Your task to perform on an android device: What's on my calendar tomorrow? Image 0: 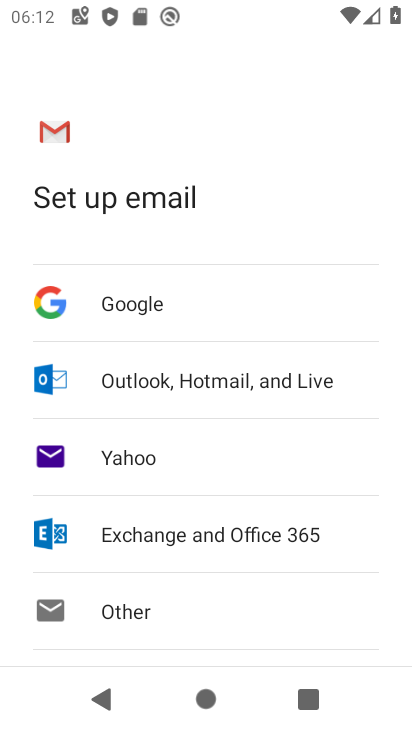
Step 0: press home button
Your task to perform on an android device: What's on my calendar tomorrow? Image 1: 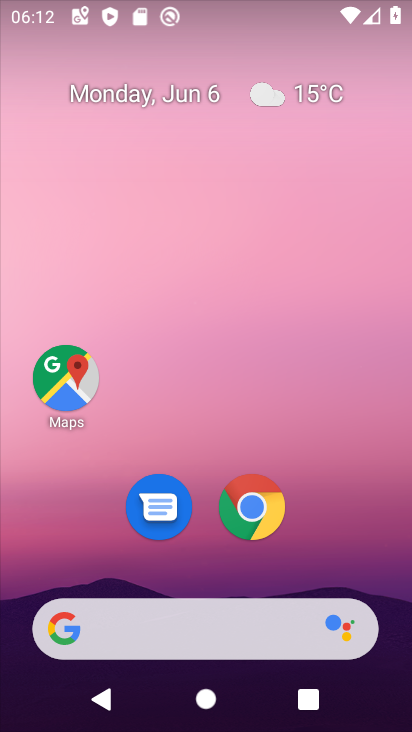
Step 1: drag from (226, 511) to (176, 7)
Your task to perform on an android device: What's on my calendar tomorrow? Image 2: 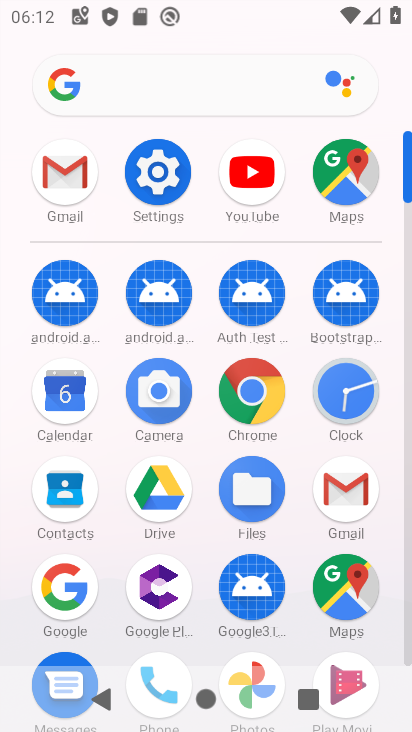
Step 2: drag from (300, 640) to (308, 221)
Your task to perform on an android device: What's on my calendar tomorrow? Image 3: 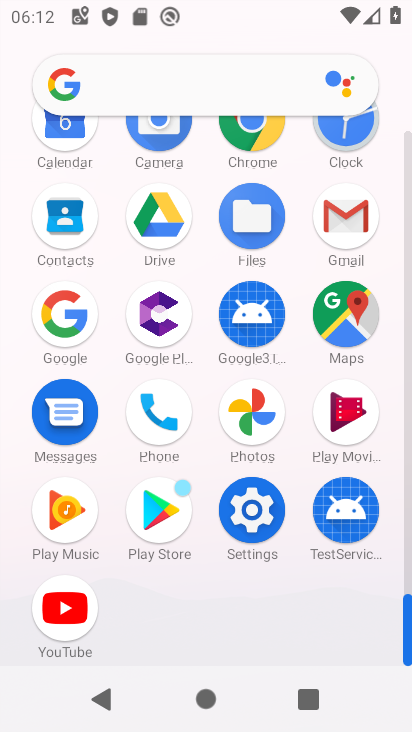
Step 3: drag from (301, 225) to (281, 599)
Your task to perform on an android device: What's on my calendar tomorrow? Image 4: 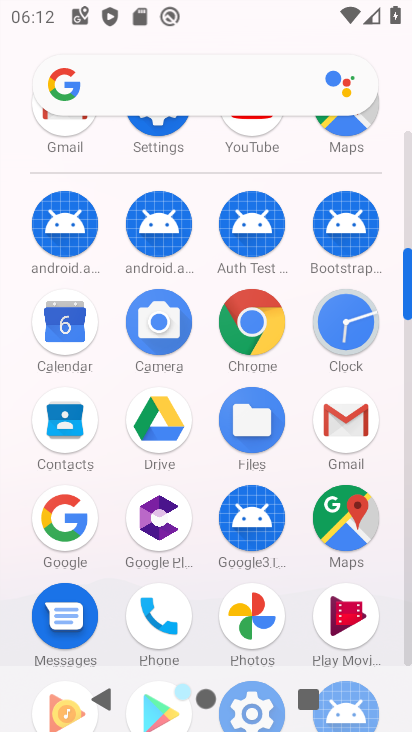
Step 4: drag from (291, 585) to (319, 3)
Your task to perform on an android device: What's on my calendar tomorrow? Image 5: 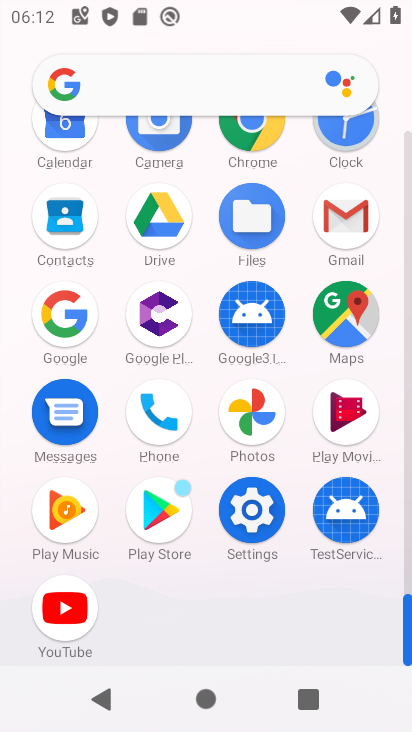
Step 5: drag from (296, 159) to (271, 596)
Your task to perform on an android device: What's on my calendar tomorrow? Image 6: 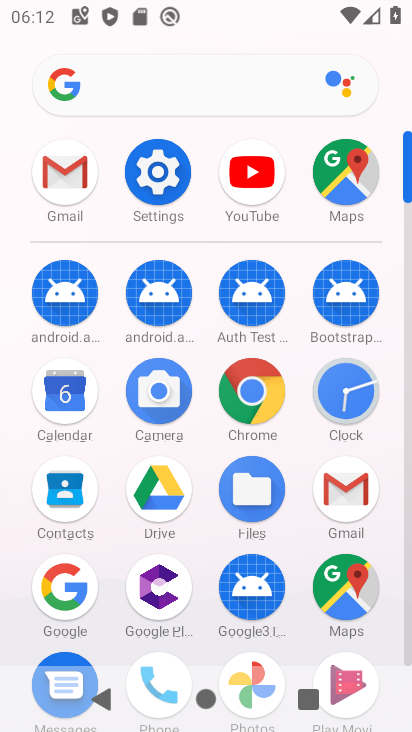
Step 6: drag from (283, 581) to (300, 186)
Your task to perform on an android device: What's on my calendar tomorrow? Image 7: 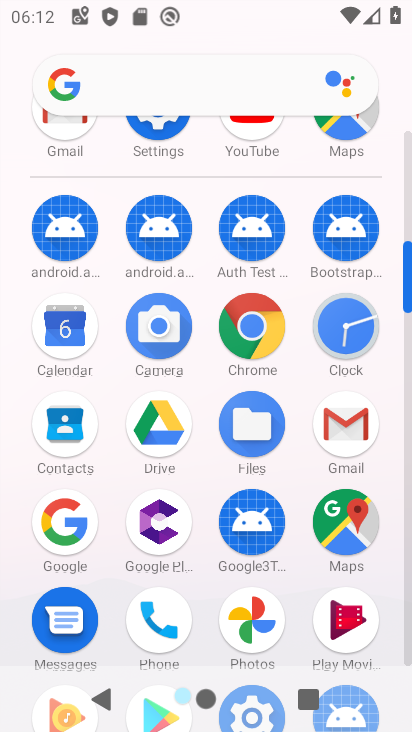
Step 7: drag from (301, 167) to (278, 661)
Your task to perform on an android device: What's on my calendar tomorrow? Image 8: 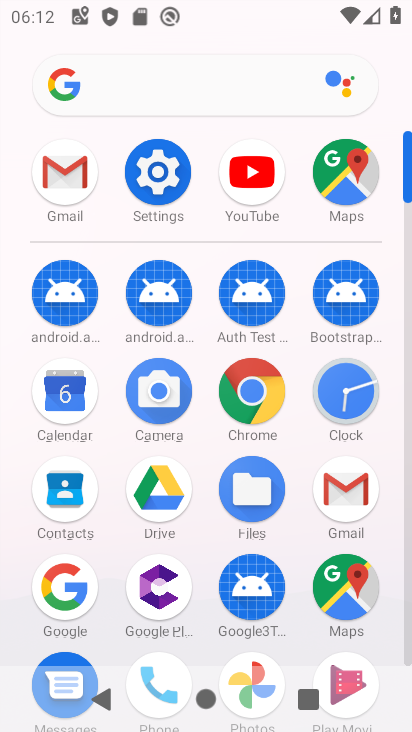
Step 8: drag from (281, 620) to (276, 108)
Your task to perform on an android device: What's on my calendar tomorrow? Image 9: 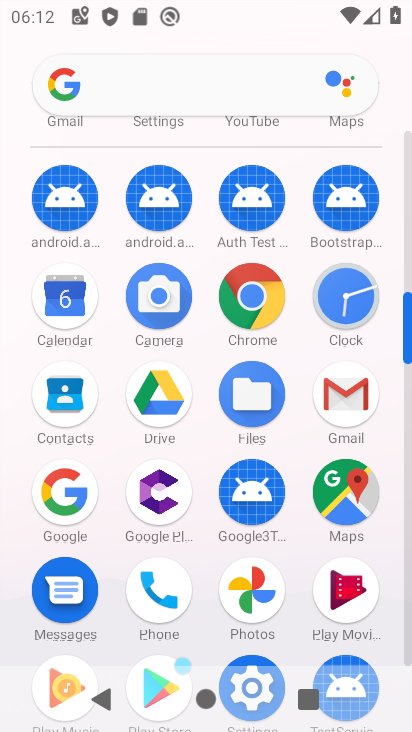
Step 9: drag from (290, 582) to (263, 61)
Your task to perform on an android device: What's on my calendar tomorrow? Image 10: 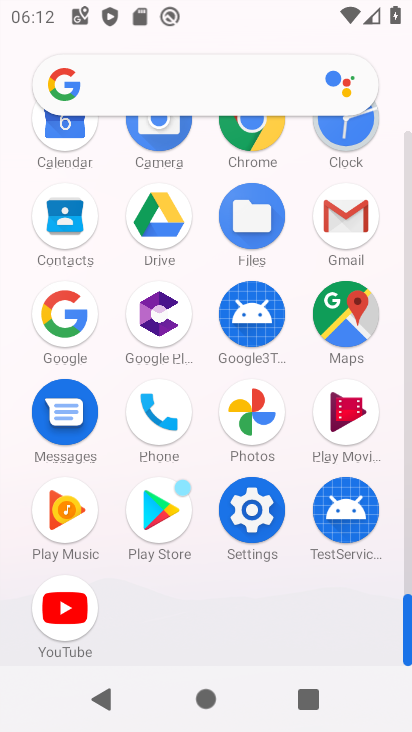
Step 10: click (51, 148)
Your task to perform on an android device: What's on my calendar tomorrow? Image 11: 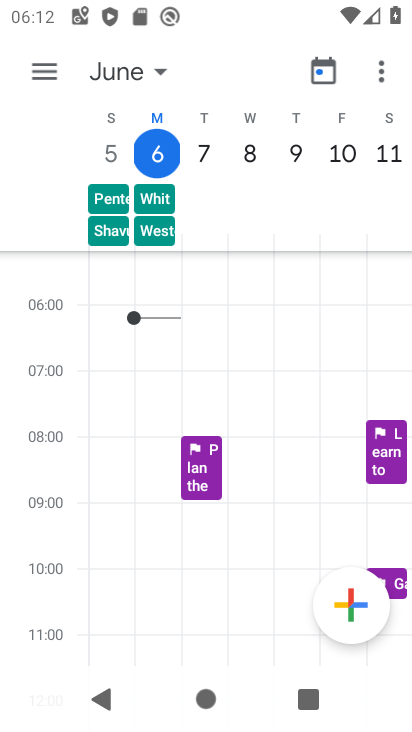
Step 11: drag from (251, 618) to (292, 186)
Your task to perform on an android device: What's on my calendar tomorrow? Image 12: 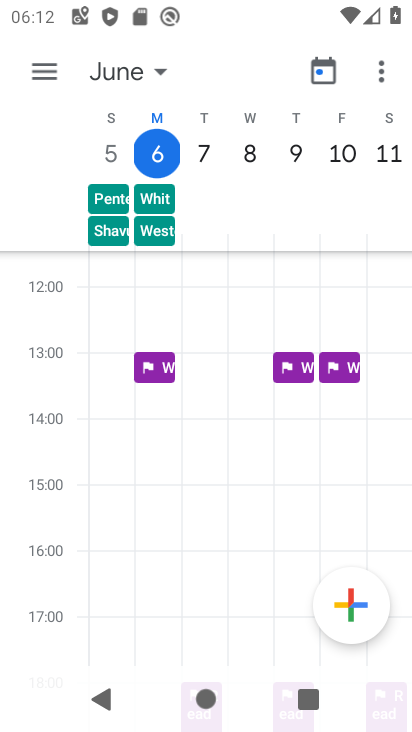
Step 12: drag from (293, 315) to (341, 731)
Your task to perform on an android device: What's on my calendar tomorrow? Image 13: 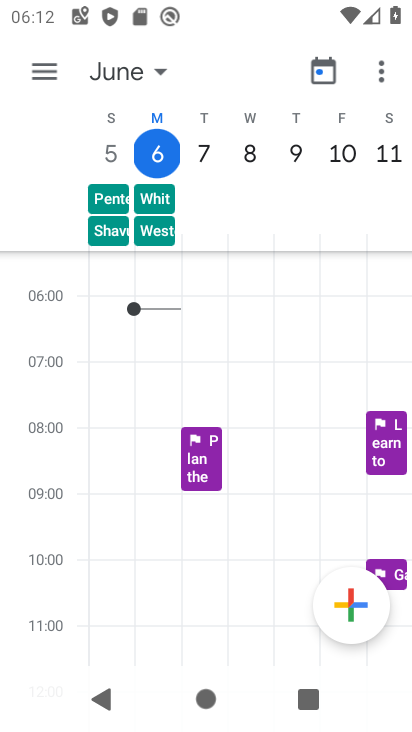
Step 13: click (41, 71)
Your task to perform on an android device: What's on my calendar tomorrow? Image 14: 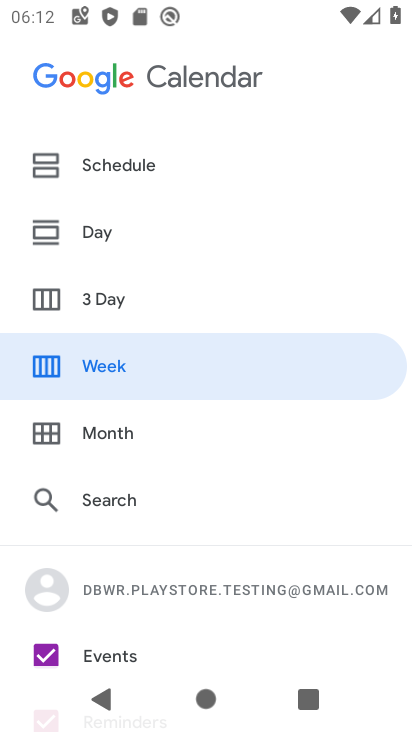
Step 14: click (141, 167)
Your task to perform on an android device: What's on my calendar tomorrow? Image 15: 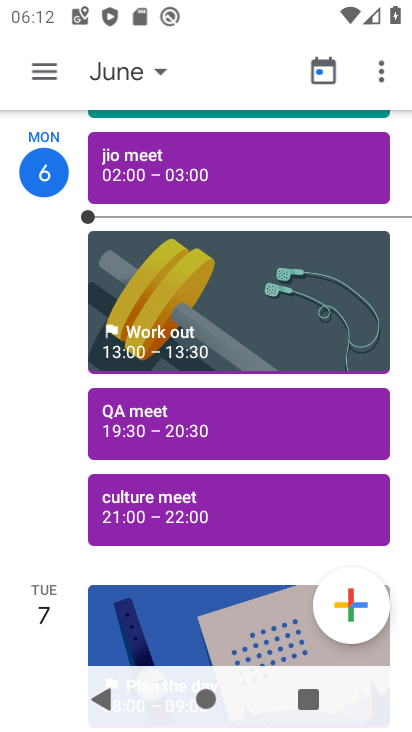
Step 15: task complete